Your task to perform on an android device: What's on my calendar today? Image 0: 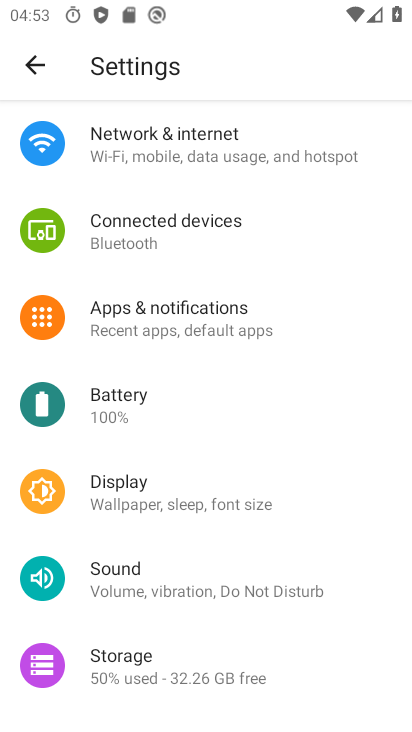
Step 0: press home button
Your task to perform on an android device: What's on my calendar today? Image 1: 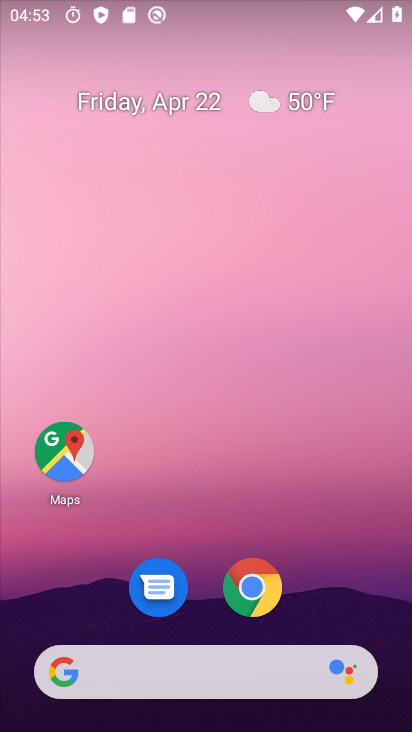
Step 1: drag from (361, 570) to (380, 3)
Your task to perform on an android device: What's on my calendar today? Image 2: 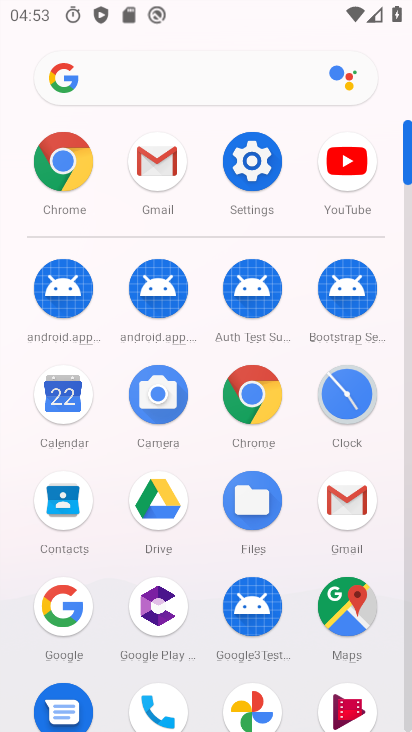
Step 2: click (59, 400)
Your task to perform on an android device: What's on my calendar today? Image 3: 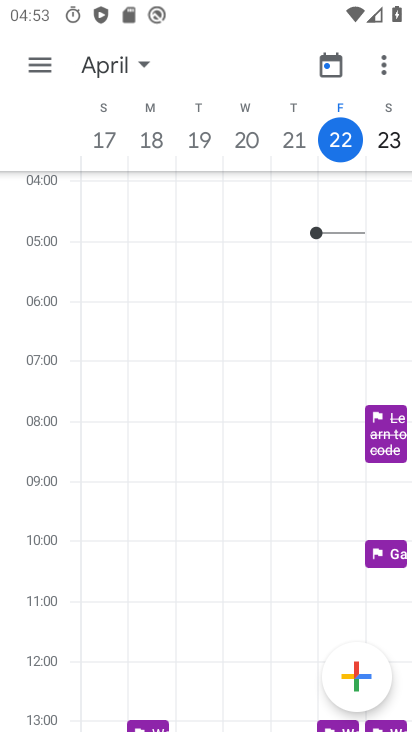
Step 3: click (146, 67)
Your task to perform on an android device: What's on my calendar today? Image 4: 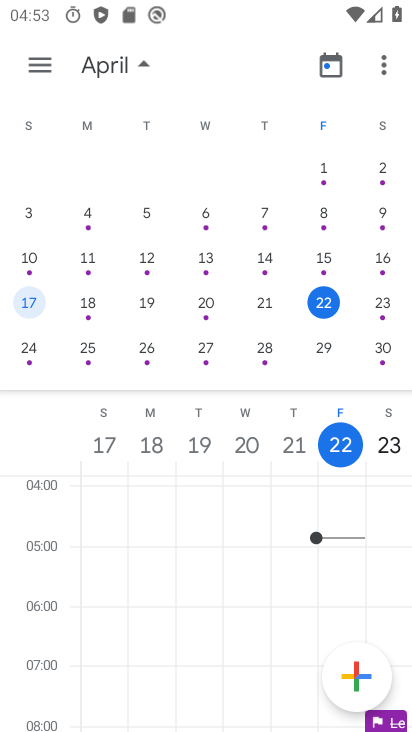
Step 4: click (314, 309)
Your task to perform on an android device: What's on my calendar today? Image 5: 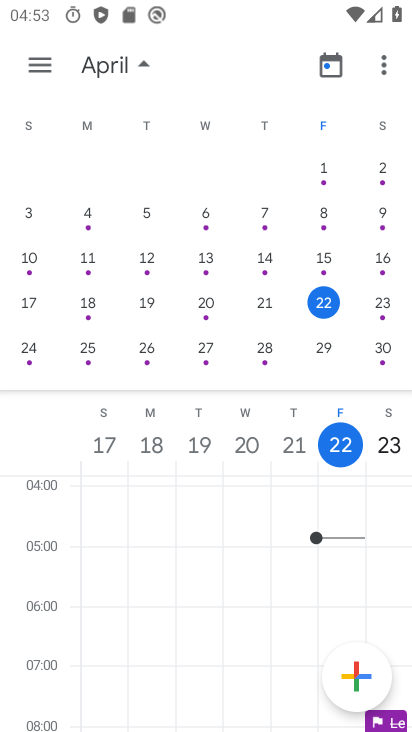
Step 5: click (35, 62)
Your task to perform on an android device: What's on my calendar today? Image 6: 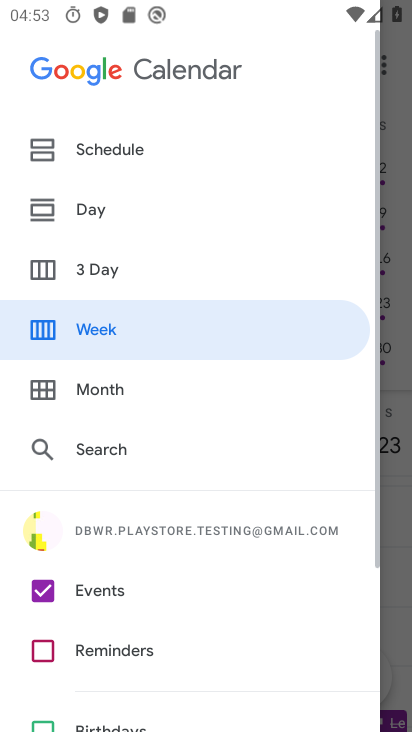
Step 6: click (107, 150)
Your task to perform on an android device: What's on my calendar today? Image 7: 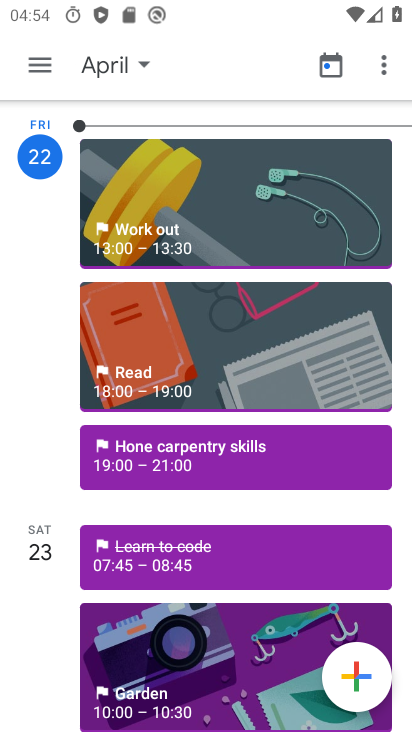
Step 7: click (139, 62)
Your task to perform on an android device: What's on my calendar today? Image 8: 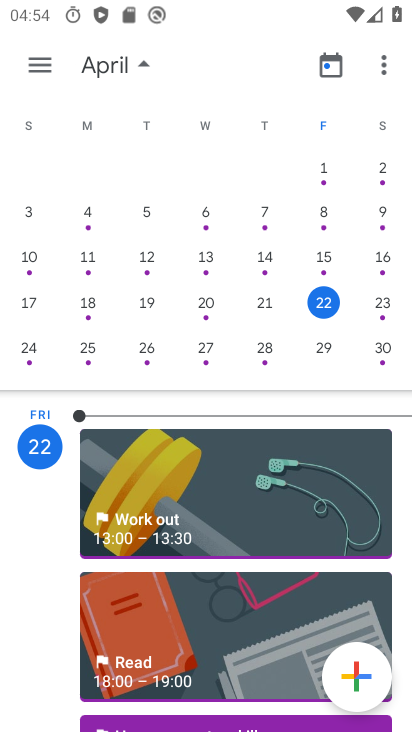
Step 8: click (314, 307)
Your task to perform on an android device: What's on my calendar today? Image 9: 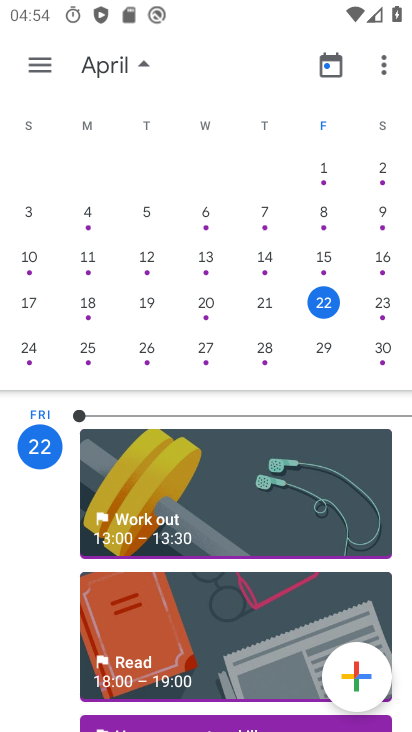
Step 9: drag from (205, 538) to (204, 266)
Your task to perform on an android device: What's on my calendar today? Image 10: 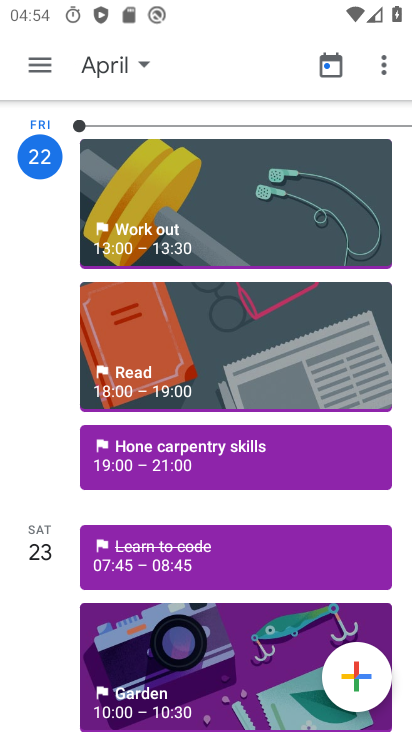
Step 10: click (157, 475)
Your task to perform on an android device: What's on my calendar today? Image 11: 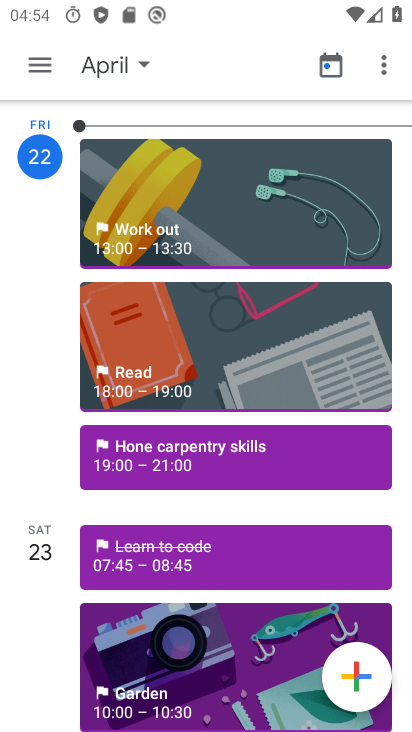
Step 11: click (163, 466)
Your task to perform on an android device: What's on my calendar today? Image 12: 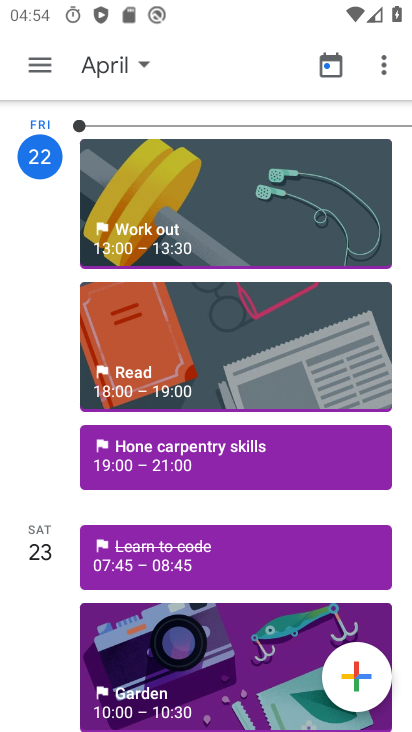
Step 12: click (196, 453)
Your task to perform on an android device: What's on my calendar today? Image 13: 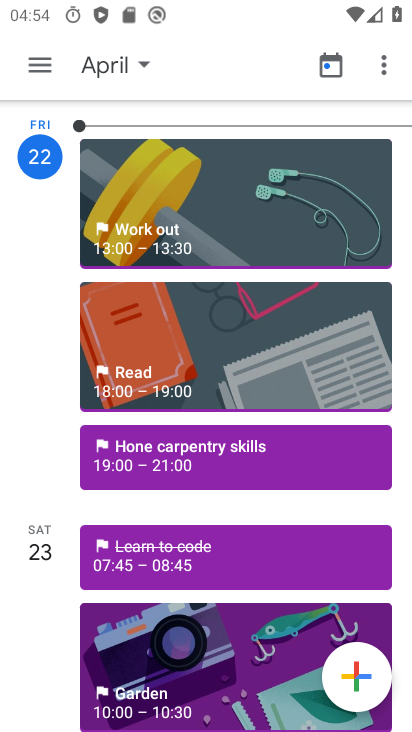
Step 13: click (172, 461)
Your task to perform on an android device: What's on my calendar today? Image 14: 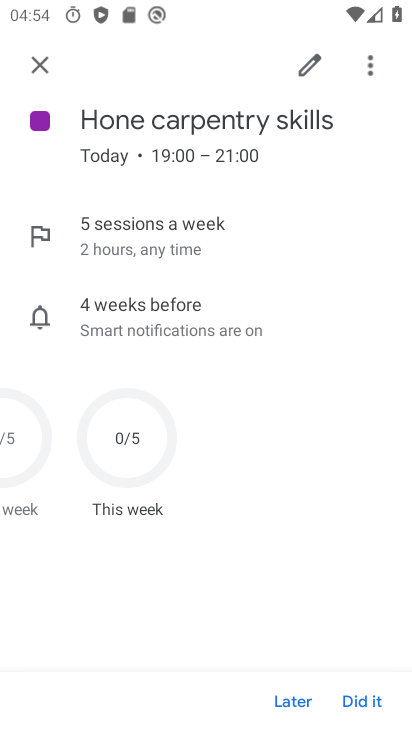
Step 14: task complete